Your task to perform on an android device: search for starred emails in the gmail app Image 0: 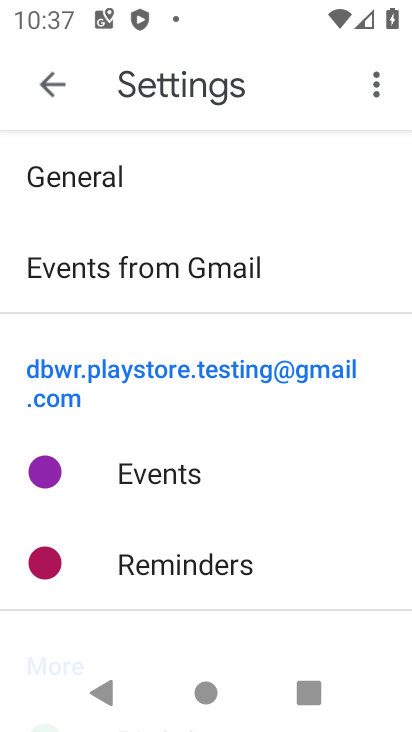
Step 0: press home button
Your task to perform on an android device: search for starred emails in the gmail app Image 1: 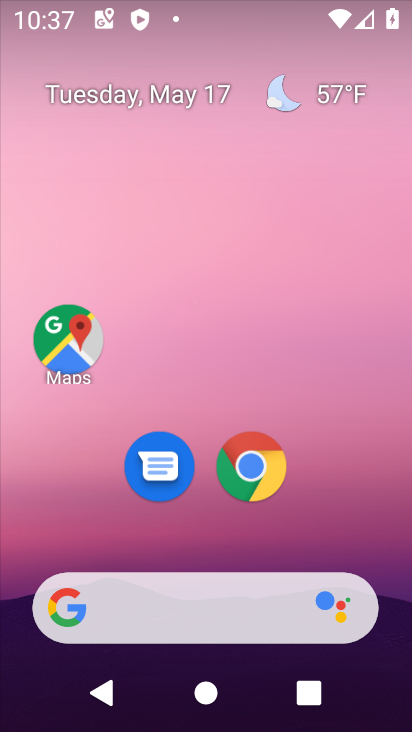
Step 1: drag from (220, 648) to (301, 157)
Your task to perform on an android device: search for starred emails in the gmail app Image 2: 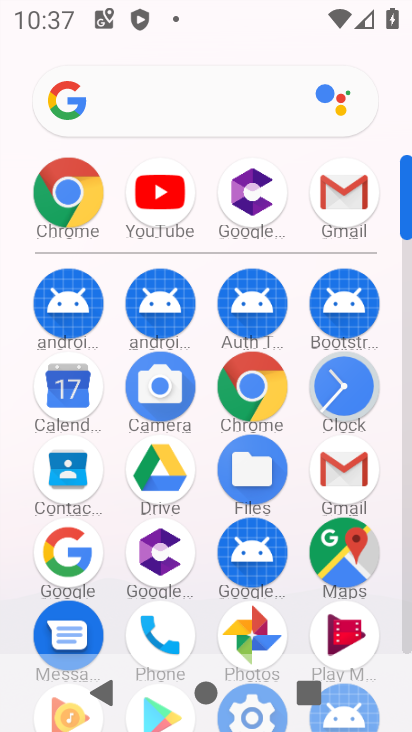
Step 2: click (318, 479)
Your task to perform on an android device: search for starred emails in the gmail app Image 3: 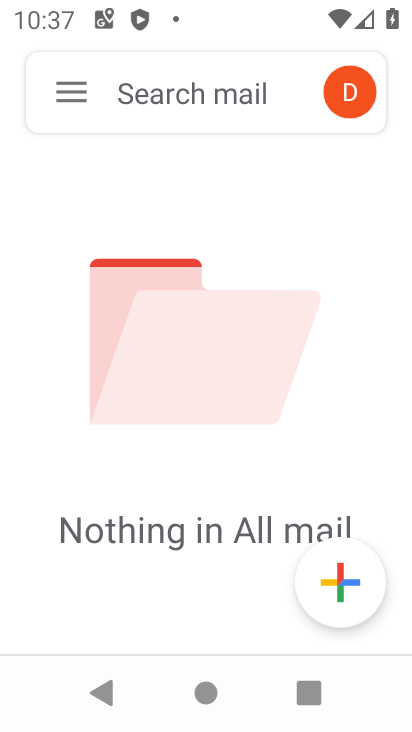
Step 3: click (77, 89)
Your task to perform on an android device: search for starred emails in the gmail app Image 4: 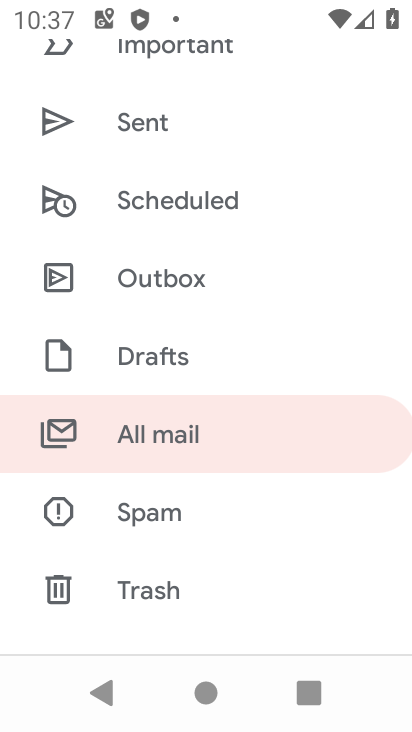
Step 4: drag from (160, 168) to (119, 543)
Your task to perform on an android device: search for starred emails in the gmail app Image 5: 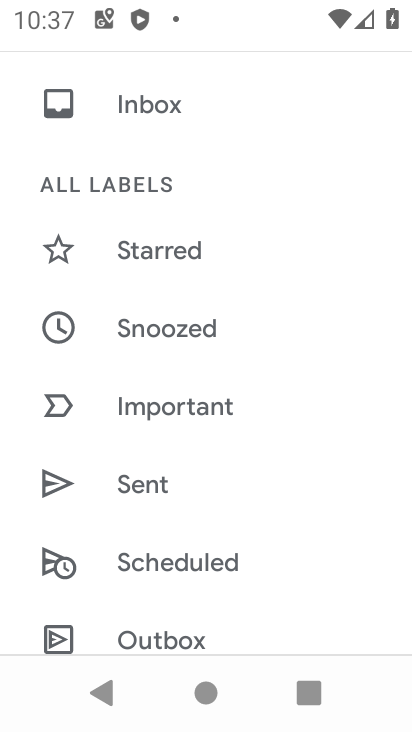
Step 5: click (135, 237)
Your task to perform on an android device: search for starred emails in the gmail app Image 6: 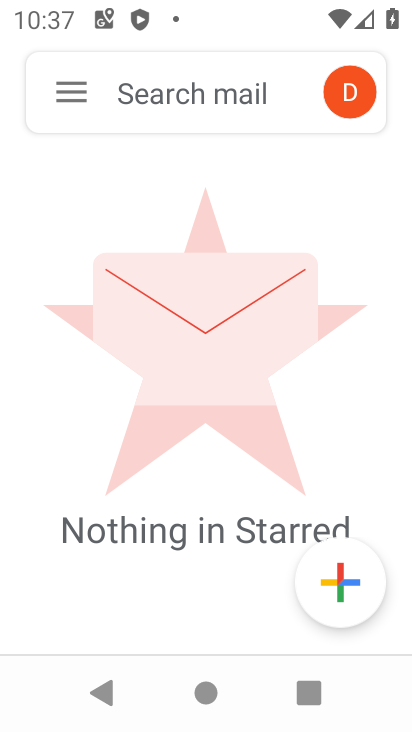
Step 6: task complete